Your task to perform on an android device: check out phone information Image 0: 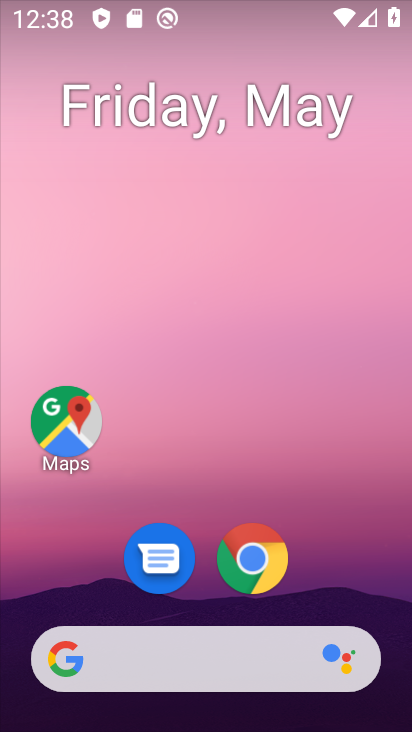
Step 0: drag from (379, 584) to (252, 57)
Your task to perform on an android device: check out phone information Image 1: 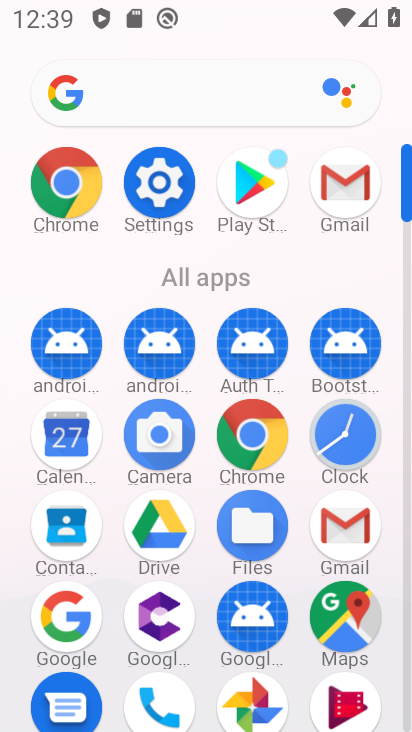
Step 1: click (166, 179)
Your task to perform on an android device: check out phone information Image 2: 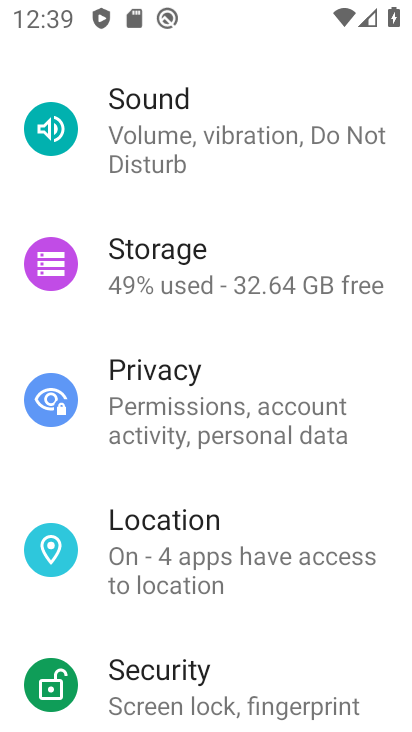
Step 2: drag from (229, 611) to (169, 143)
Your task to perform on an android device: check out phone information Image 3: 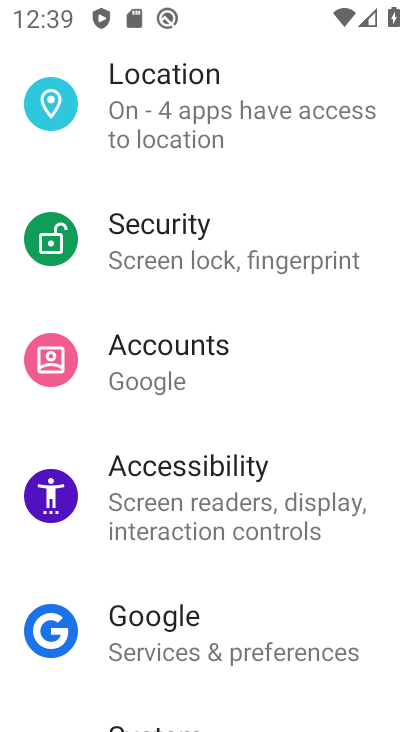
Step 3: drag from (233, 668) to (162, 334)
Your task to perform on an android device: check out phone information Image 4: 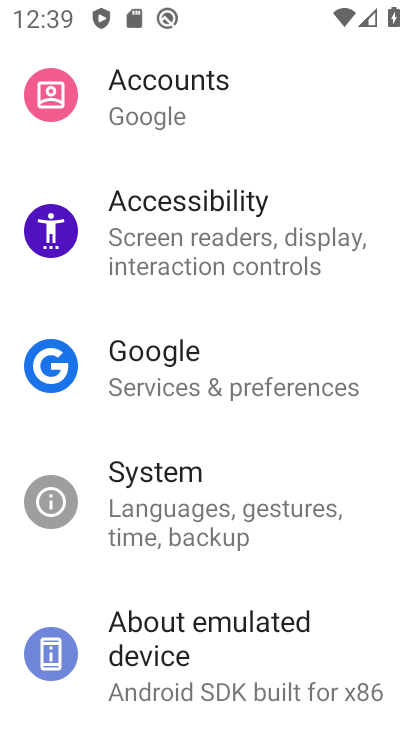
Step 4: click (217, 648)
Your task to perform on an android device: check out phone information Image 5: 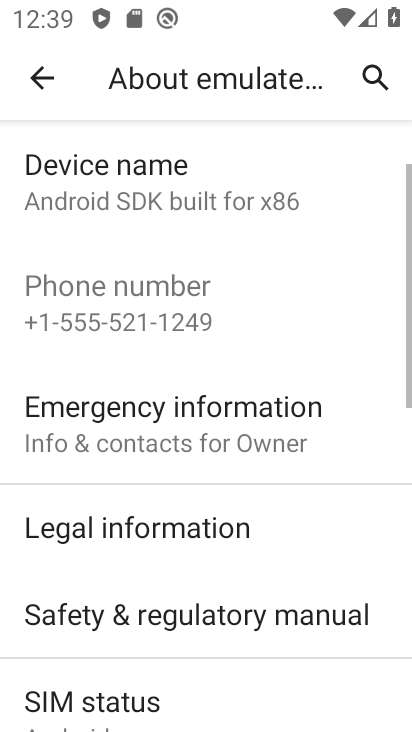
Step 5: task complete